Your task to perform on an android device: manage bookmarks in the chrome app Image 0: 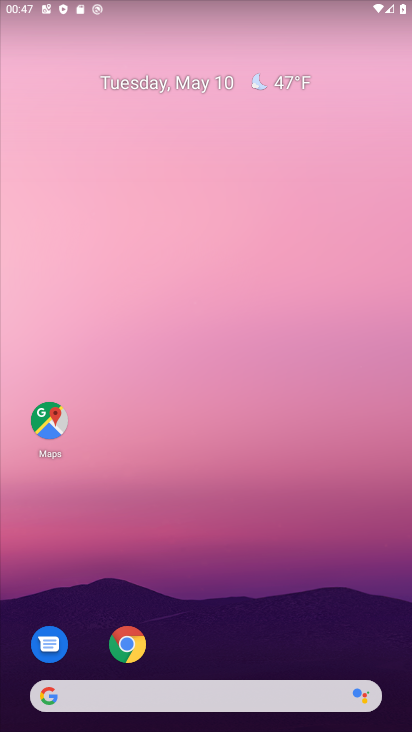
Step 0: click (132, 652)
Your task to perform on an android device: manage bookmarks in the chrome app Image 1: 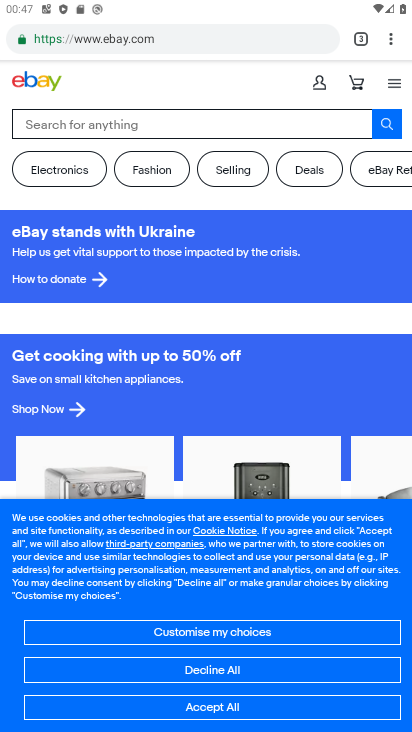
Step 1: click (388, 41)
Your task to perform on an android device: manage bookmarks in the chrome app Image 2: 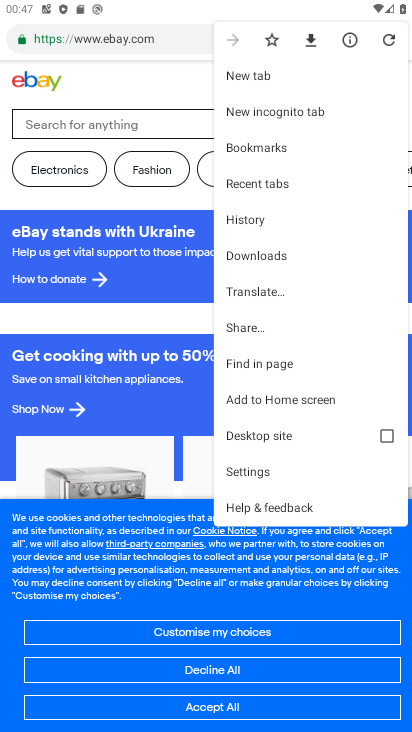
Step 2: click (274, 145)
Your task to perform on an android device: manage bookmarks in the chrome app Image 3: 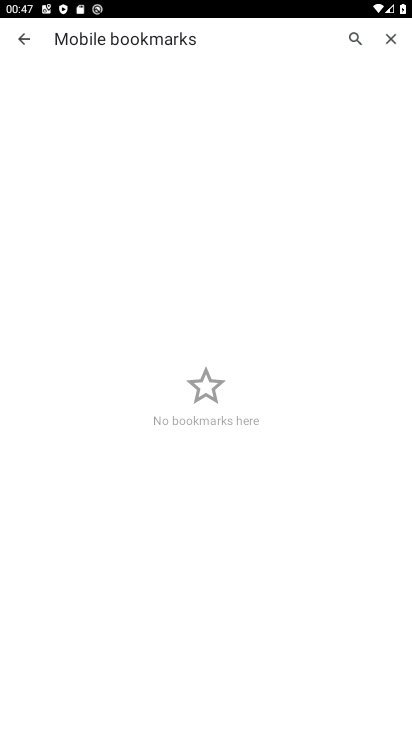
Step 3: task complete